Your task to perform on an android device: check battery use Image 0: 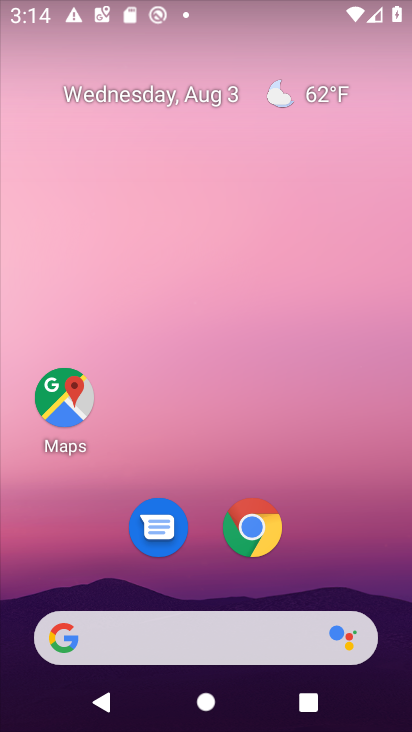
Step 0: drag from (362, 491) to (241, 64)
Your task to perform on an android device: check battery use Image 1: 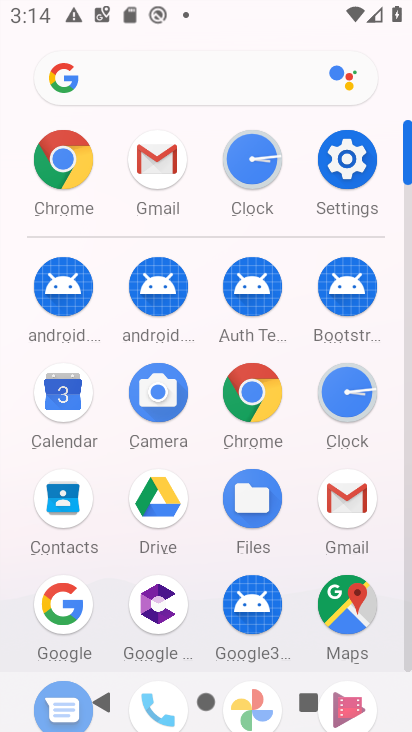
Step 1: click (338, 158)
Your task to perform on an android device: check battery use Image 2: 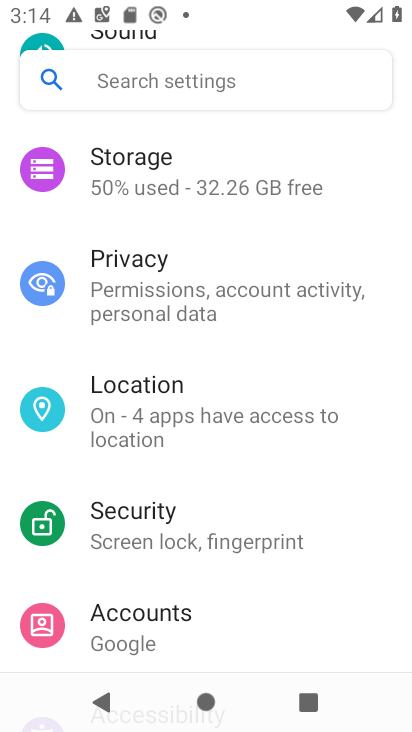
Step 2: drag from (289, 144) to (295, 480)
Your task to perform on an android device: check battery use Image 3: 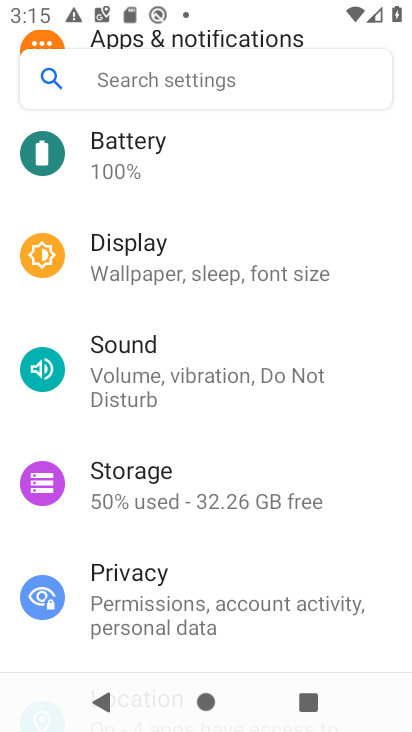
Step 3: click (146, 160)
Your task to perform on an android device: check battery use Image 4: 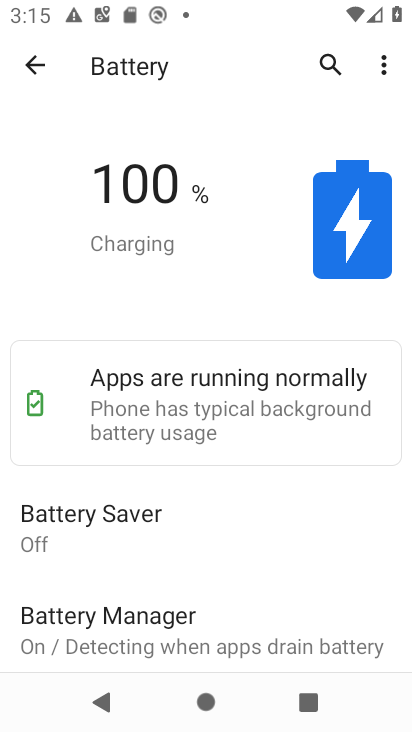
Step 4: click (381, 60)
Your task to perform on an android device: check battery use Image 5: 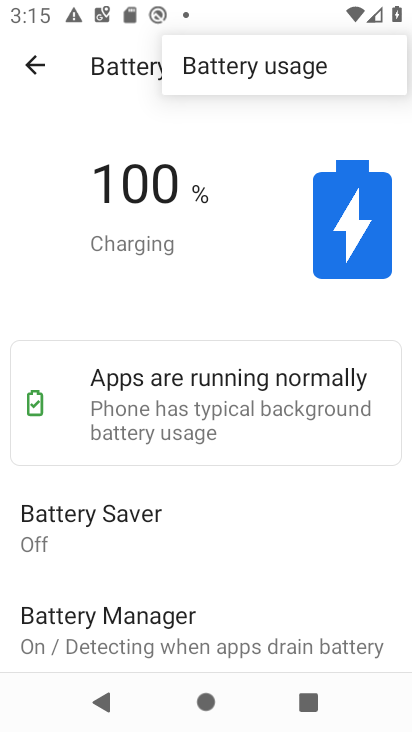
Step 5: click (287, 78)
Your task to perform on an android device: check battery use Image 6: 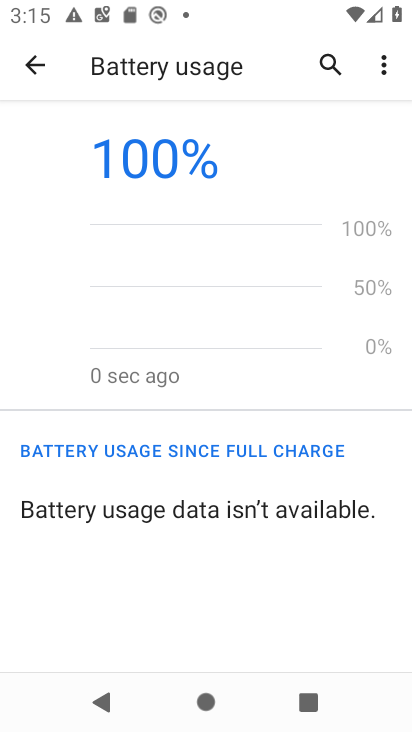
Step 6: task complete